Your task to perform on an android device: refresh tabs in the chrome app Image 0: 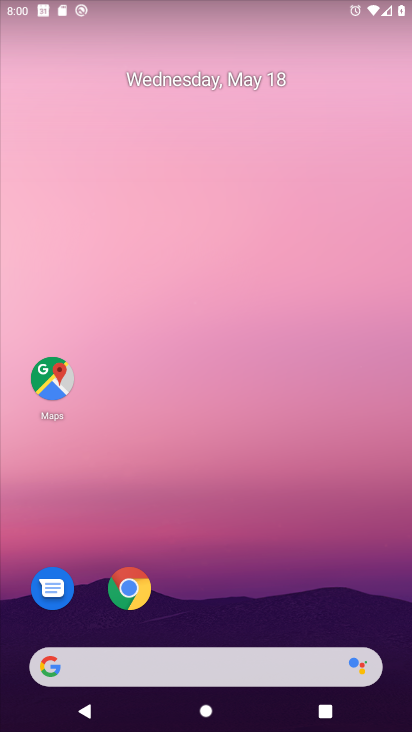
Step 0: click (144, 593)
Your task to perform on an android device: refresh tabs in the chrome app Image 1: 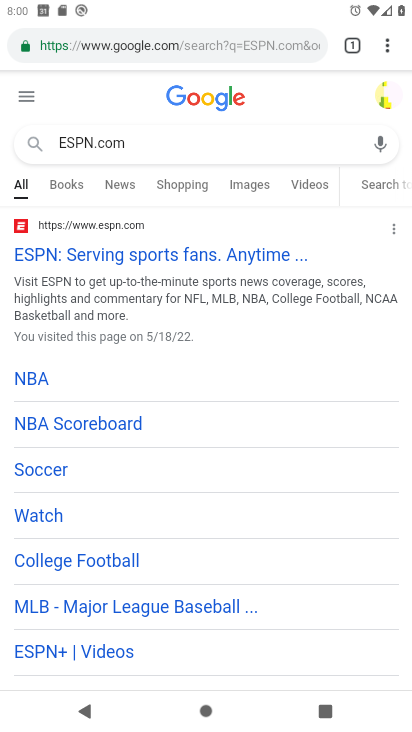
Step 1: click (389, 48)
Your task to perform on an android device: refresh tabs in the chrome app Image 2: 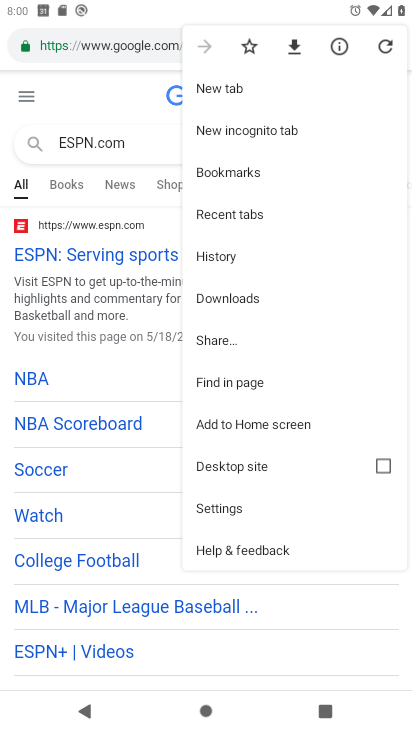
Step 2: click (392, 50)
Your task to perform on an android device: refresh tabs in the chrome app Image 3: 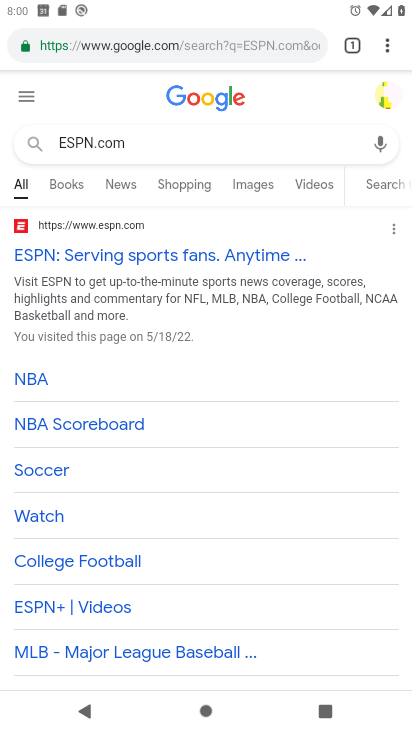
Step 3: task complete